Your task to perform on an android device: turn off notifications in google photos Image 0: 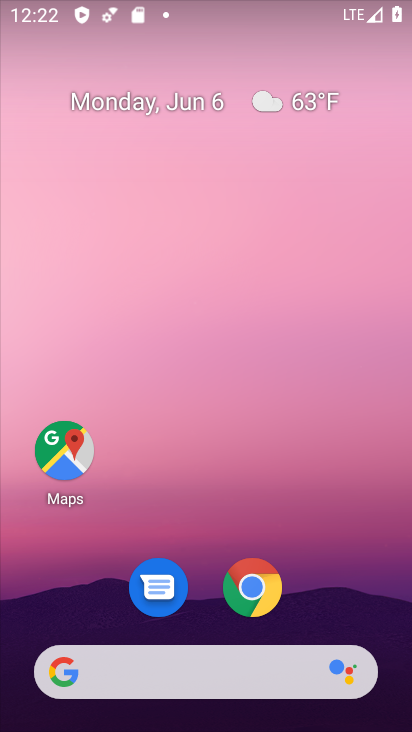
Step 0: drag from (390, 592) to (351, 222)
Your task to perform on an android device: turn off notifications in google photos Image 1: 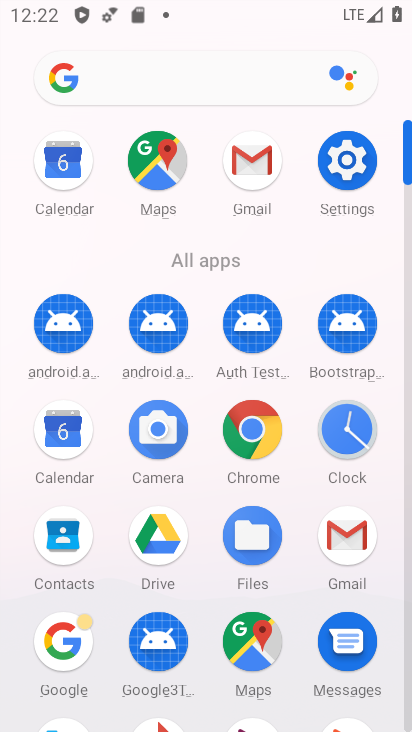
Step 1: click (410, 664)
Your task to perform on an android device: turn off notifications in google photos Image 2: 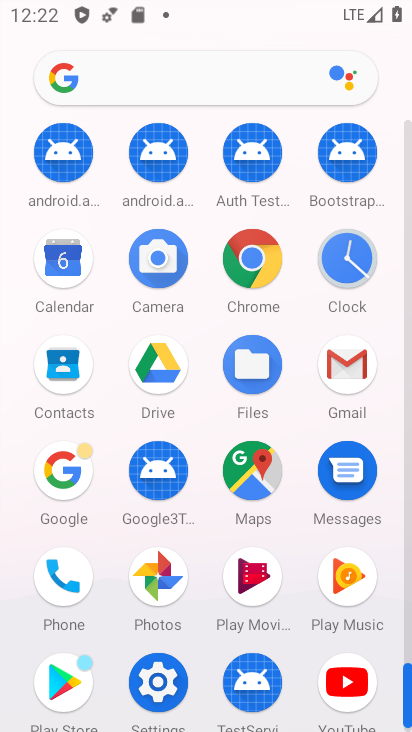
Step 2: click (165, 567)
Your task to perform on an android device: turn off notifications in google photos Image 3: 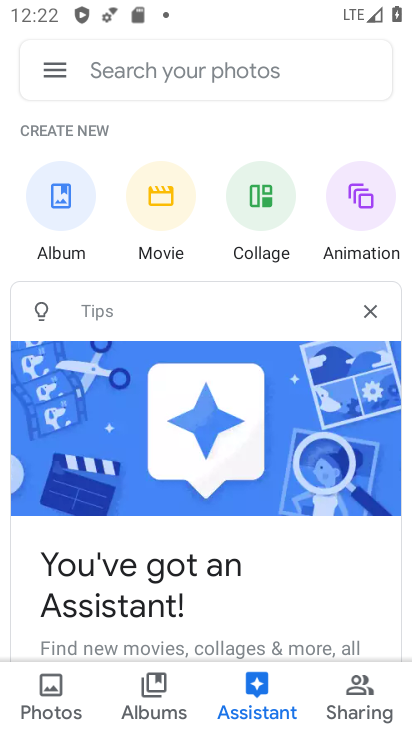
Step 3: click (63, 76)
Your task to perform on an android device: turn off notifications in google photos Image 4: 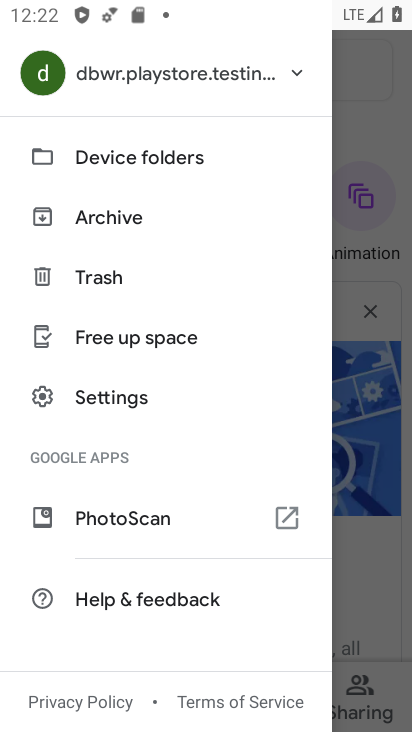
Step 4: click (119, 399)
Your task to perform on an android device: turn off notifications in google photos Image 5: 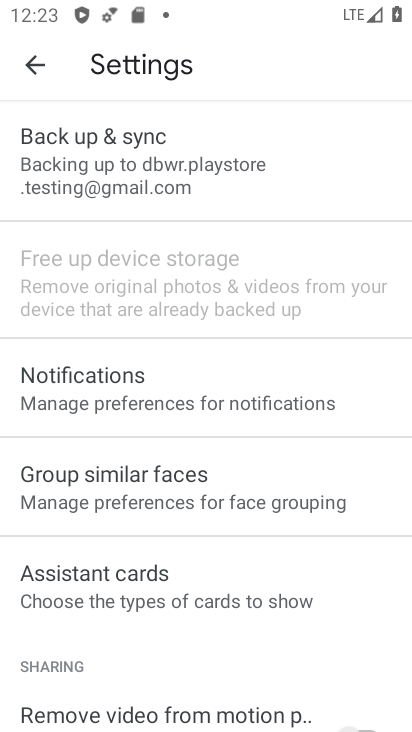
Step 5: click (209, 400)
Your task to perform on an android device: turn off notifications in google photos Image 6: 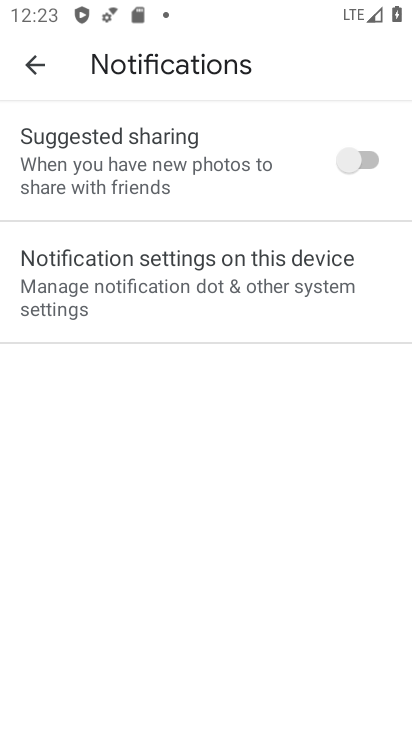
Step 6: click (294, 334)
Your task to perform on an android device: turn off notifications in google photos Image 7: 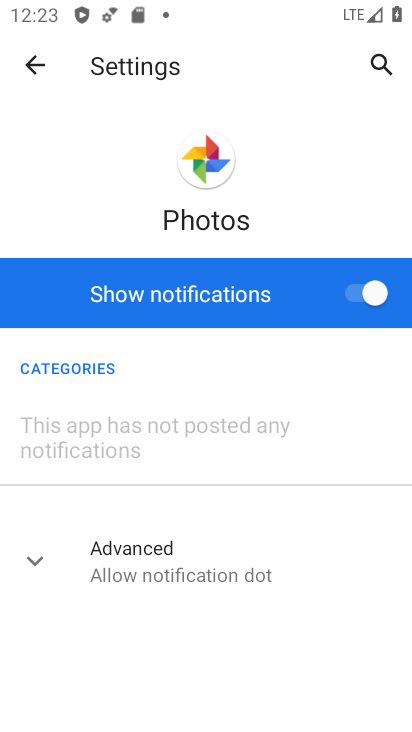
Step 7: click (377, 308)
Your task to perform on an android device: turn off notifications in google photos Image 8: 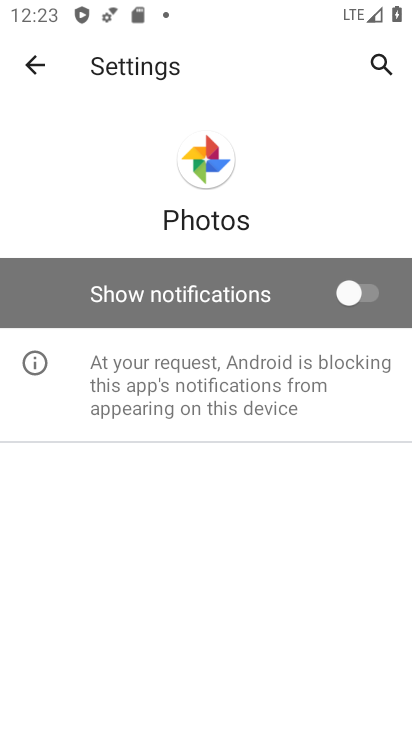
Step 8: task complete